Your task to perform on an android device: Open the contacts Image 0: 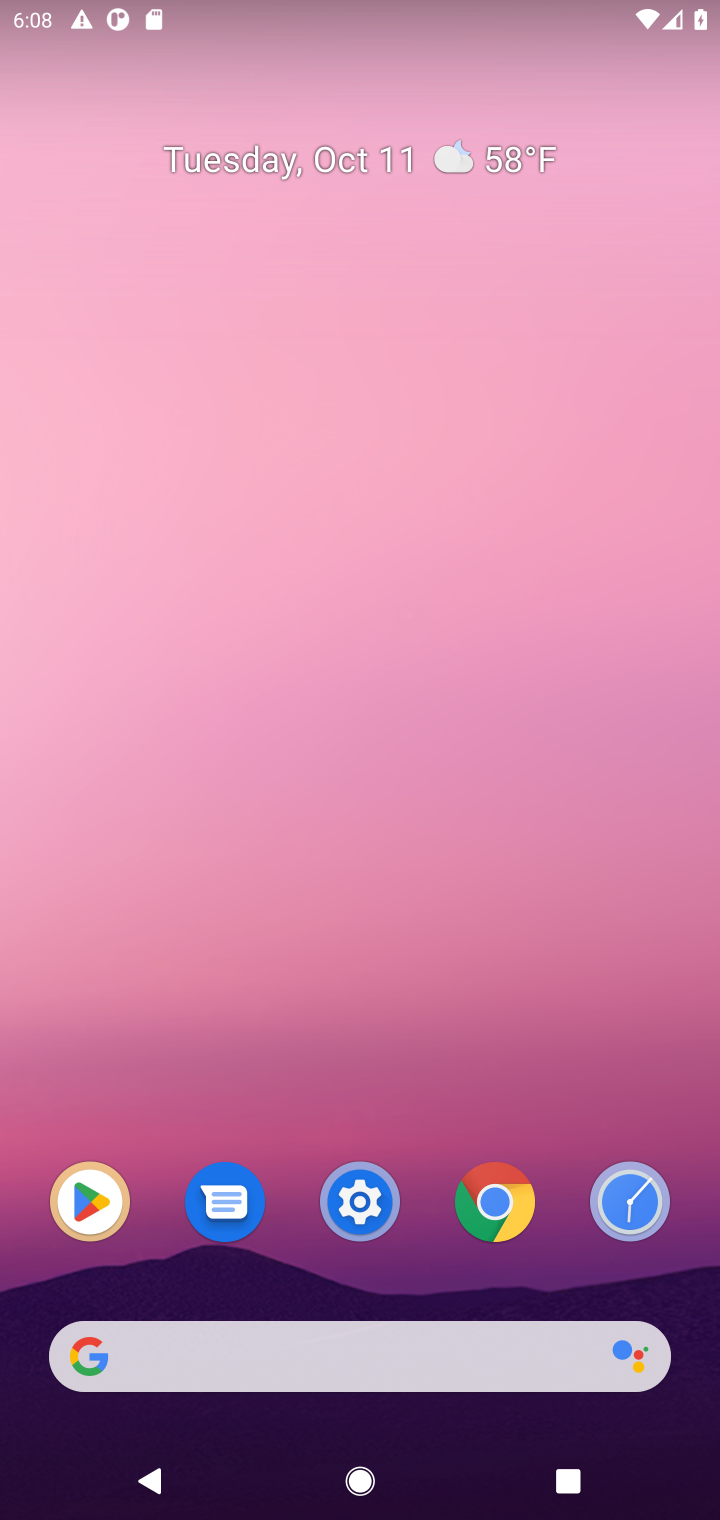
Step 0: drag from (425, 1159) to (288, 57)
Your task to perform on an android device: Open the contacts Image 1: 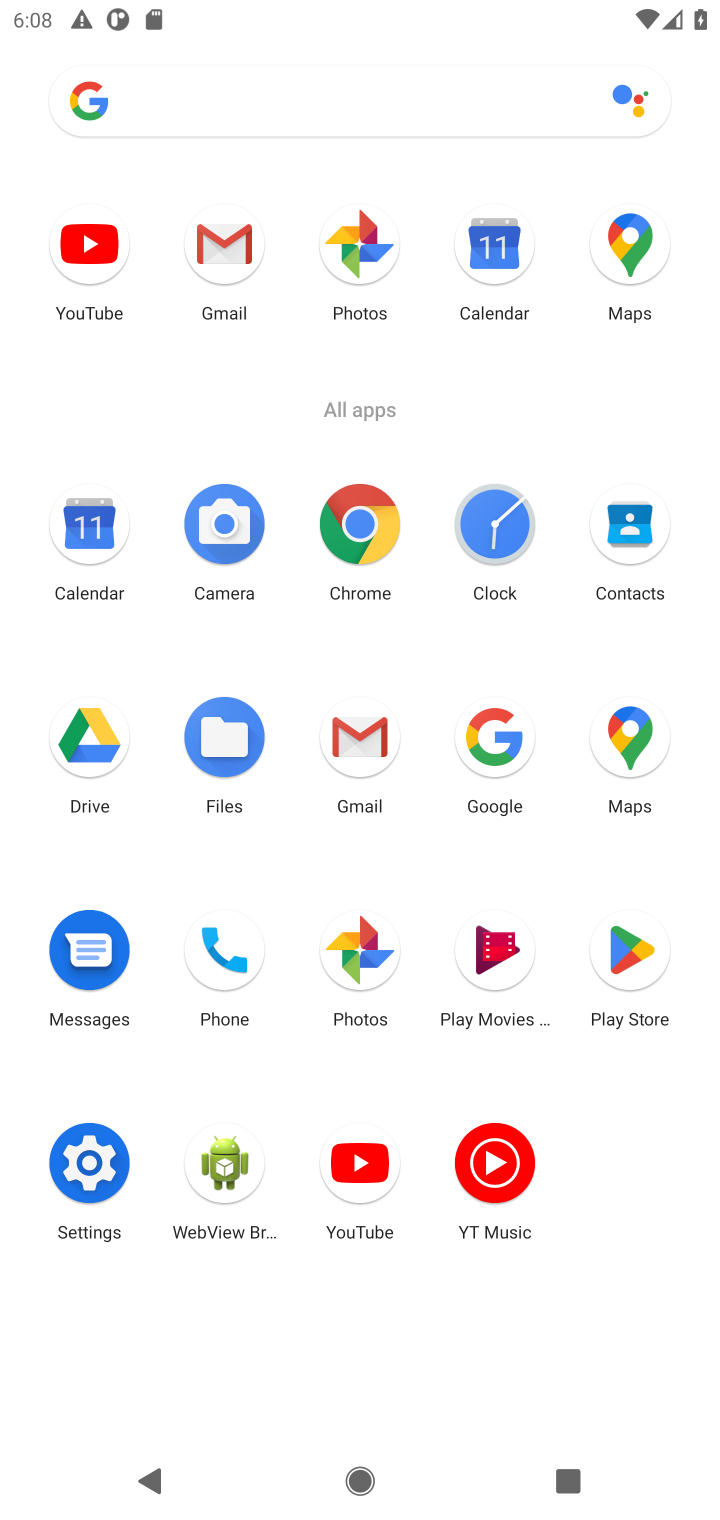
Step 1: click (617, 543)
Your task to perform on an android device: Open the contacts Image 2: 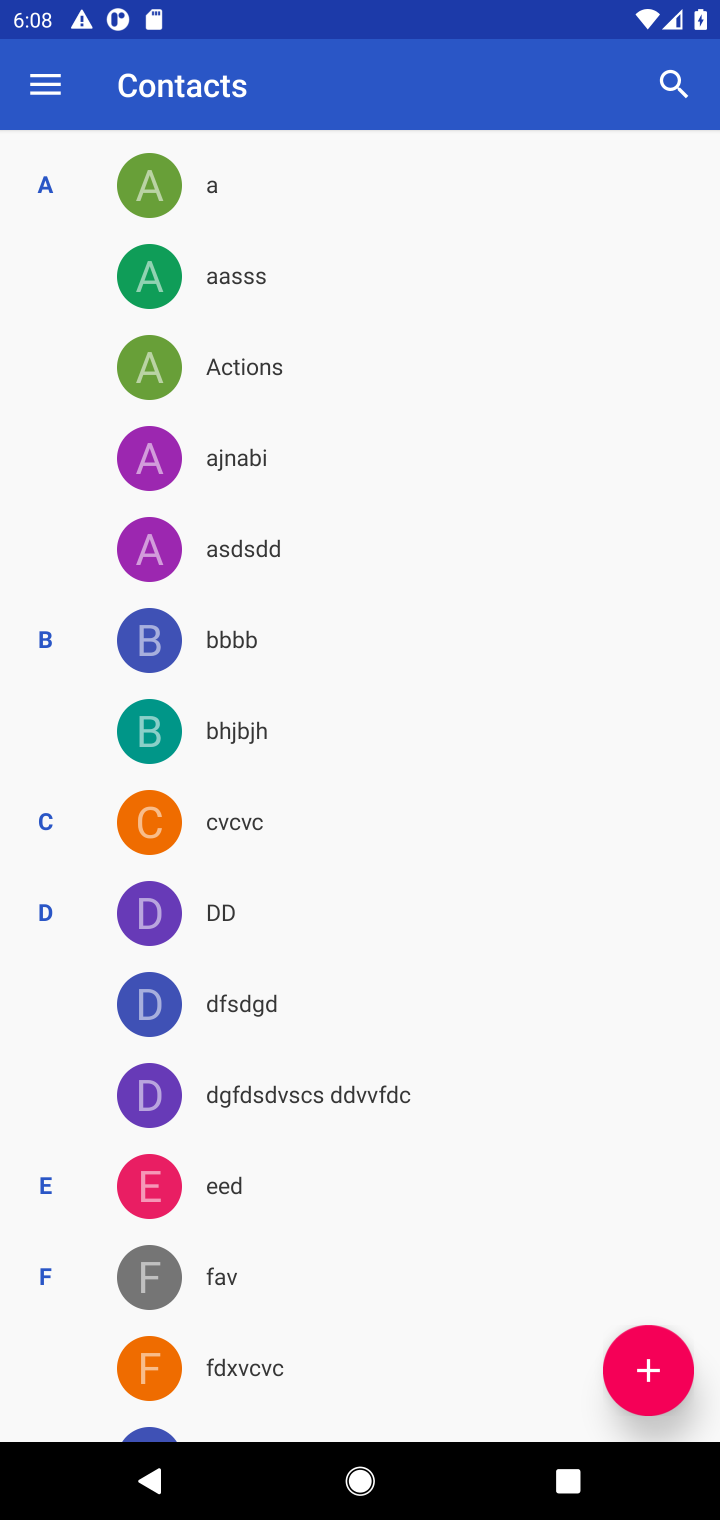
Step 2: task complete